Your task to perform on an android device: toggle location history Image 0: 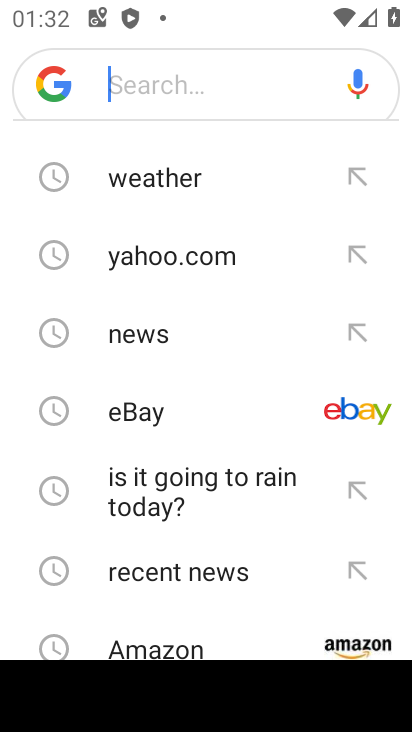
Step 0: press home button
Your task to perform on an android device: toggle location history Image 1: 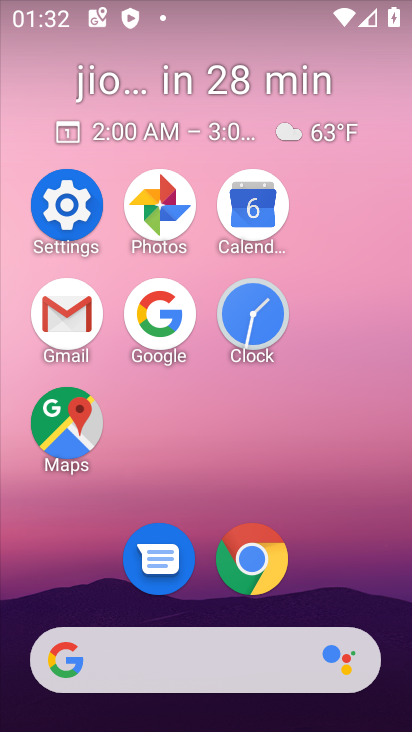
Step 1: click (83, 201)
Your task to perform on an android device: toggle location history Image 2: 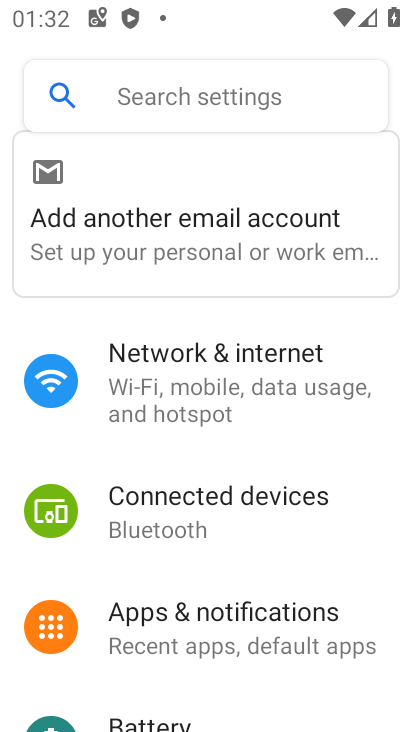
Step 2: drag from (273, 580) to (302, 130)
Your task to perform on an android device: toggle location history Image 3: 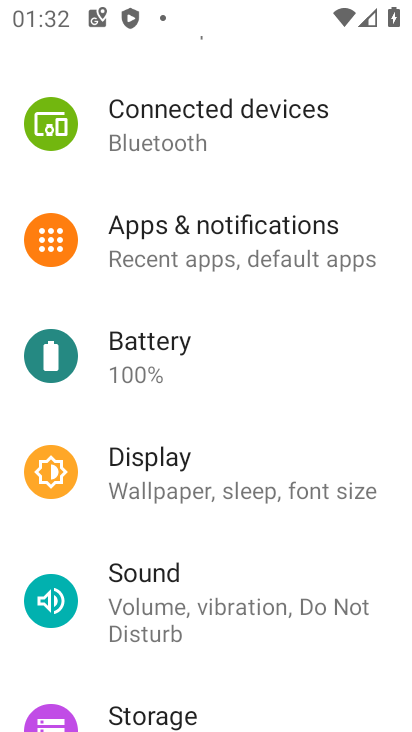
Step 3: drag from (238, 575) to (250, 227)
Your task to perform on an android device: toggle location history Image 4: 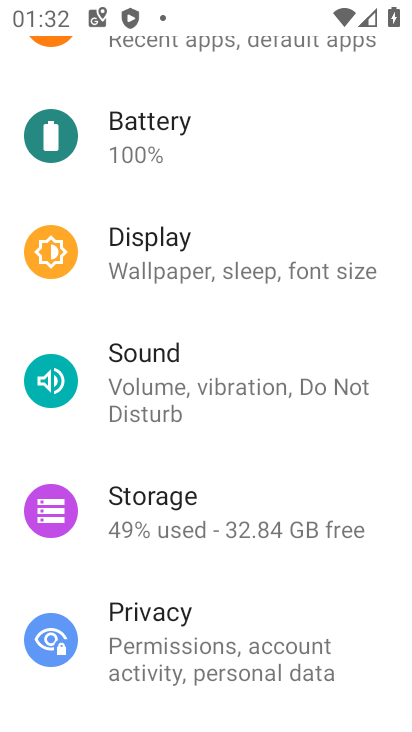
Step 4: drag from (172, 565) to (181, 209)
Your task to perform on an android device: toggle location history Image 5: 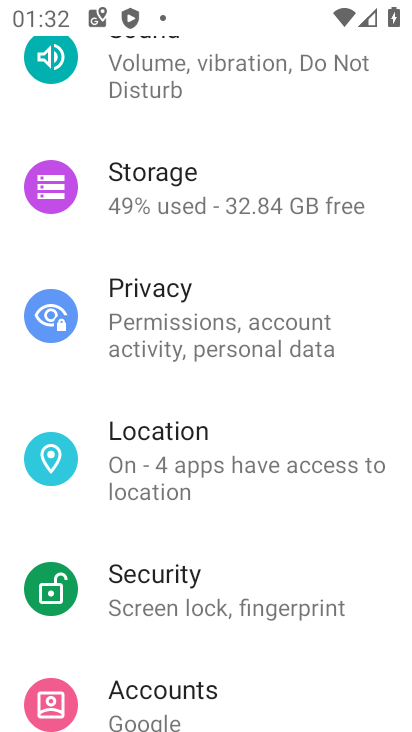
Step 5: click (184, 472)
Your task to perform on an android device: toggle location history Image 6: 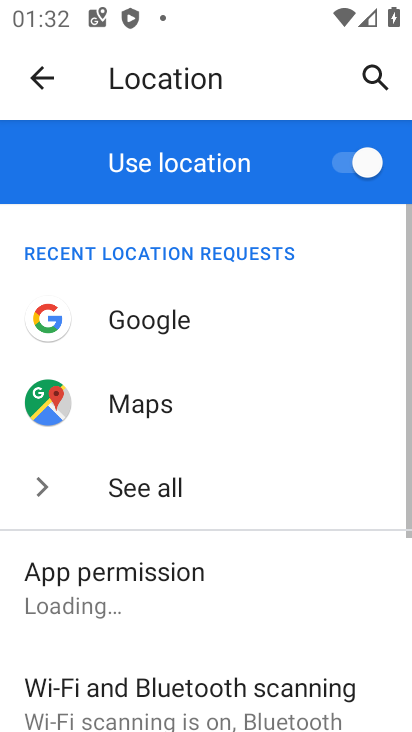
Step 6: drag from (174, 598) to (203, 210)
Your task to perform on an android device: toggle location history Image 7: 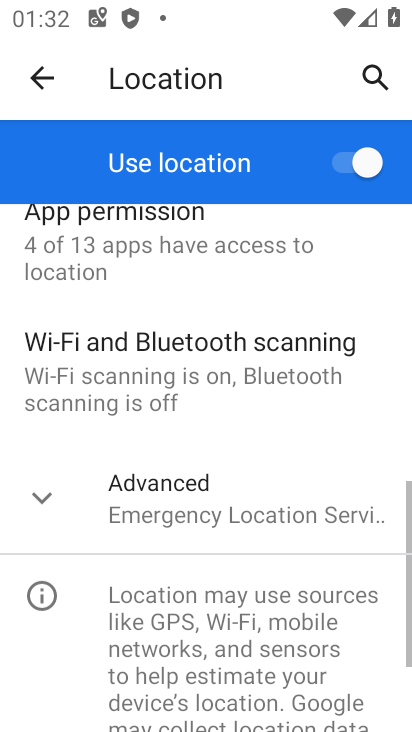
Step 7: click (185, 471)
Your task to perform on an android device: toggle location history Image 8: 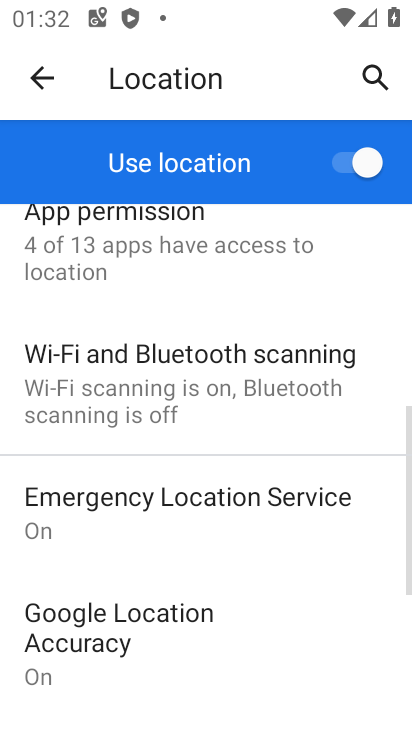
Step 8: drag from (165, 603) to (215, 248)
Your task to perform on an android device: toggle location history Image 9: 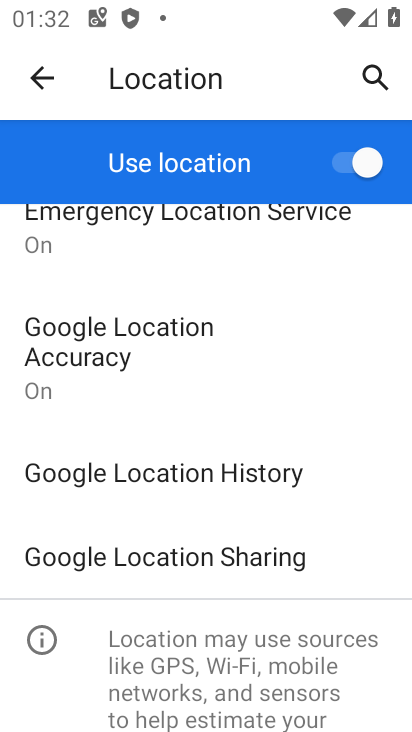
Step 9: click (248, 470)
Your task to perform on an android device: toggle location history Image 10: 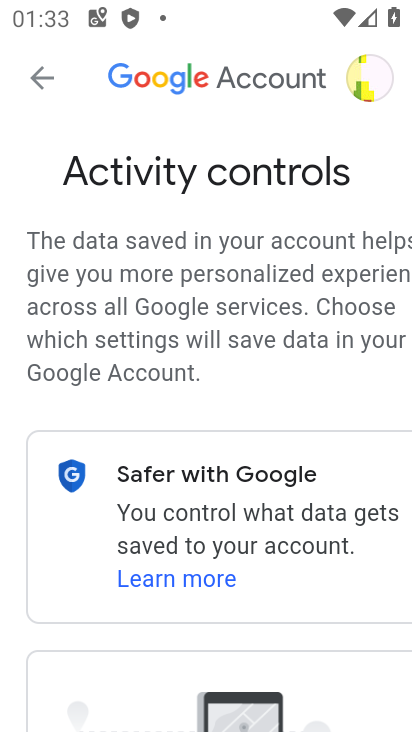
Step 10: drag from (296, 531) to (282, 138)
Your task to perform on an android device: toggle location history Image 11: 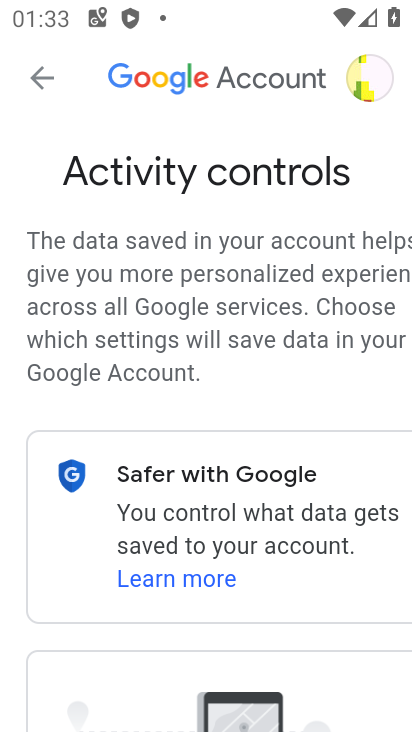
Step 11: drag from (277, 546) to (273, 193)
Your task to perform on an android device: toggle location history Image 12: 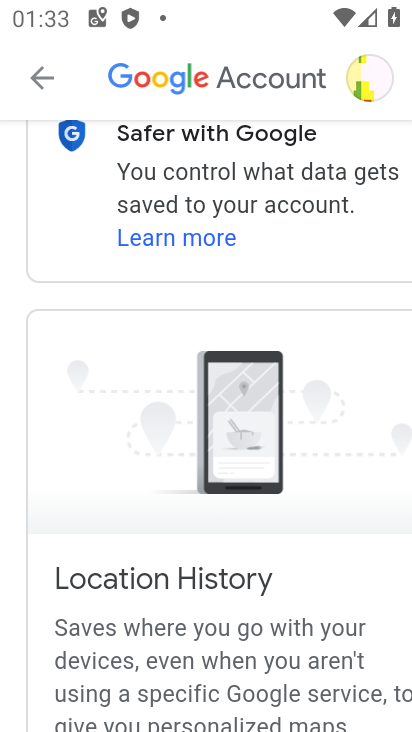
Step 12: drag from (329, 592) to (377, 263)
Your task to perform on an android device: toggle location history Image 13: 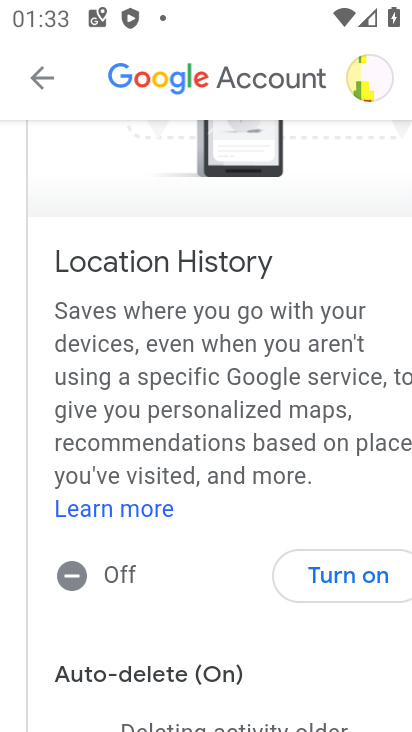
Step 13: click (343, 586)
Your task to perform on an android device: toggle location history Image 14: 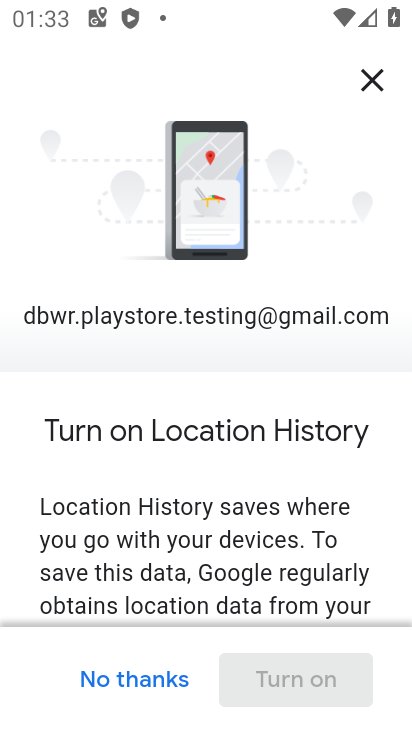
Step 14: drag from (350, 513) to (358, 251)
Your task to perform on an android device: toggle location history Image 15: 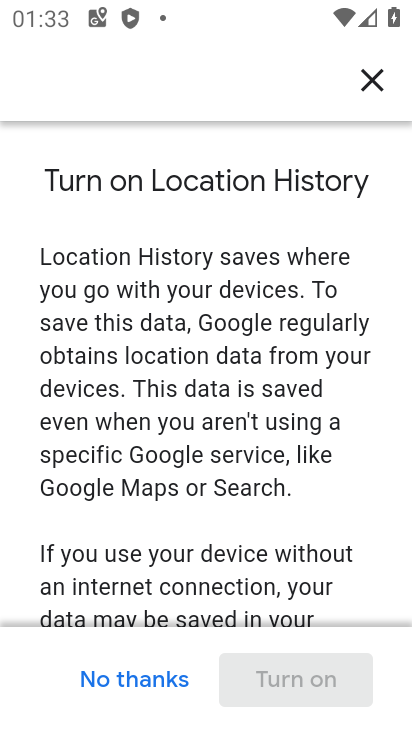
Step 15: drag from (322, 441) to (356, 221)
Your task to perform on an android device: toggle location history Image 16: 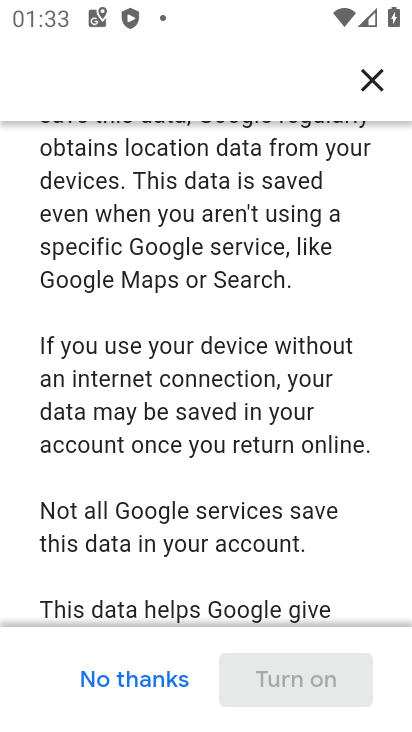
Step 16: drag from (316, 514) to (337, 211)
Your task to perform on an android device: toggle location history Image 17: 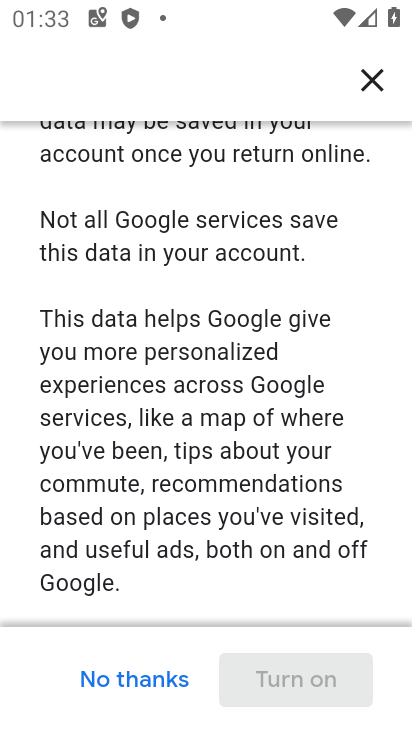
Step 17: drag from (325, 567) to (309, 247)
Your task to perform on an android device: toggle location history Image 18: 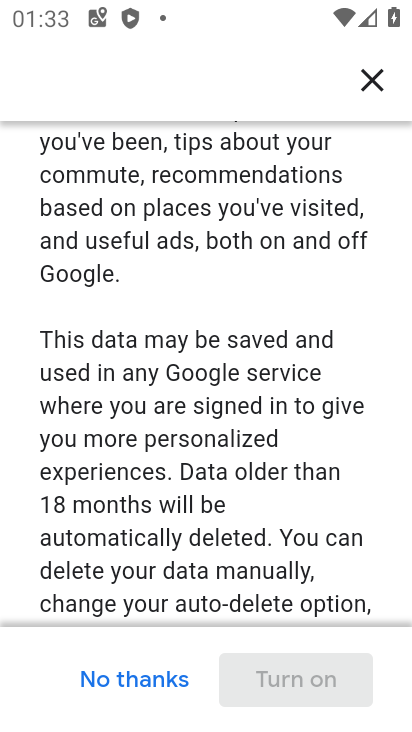
Step 18: drag from (343, 556) to (342, 108)
Your task to perform on an android device: toggle location history Image 19: 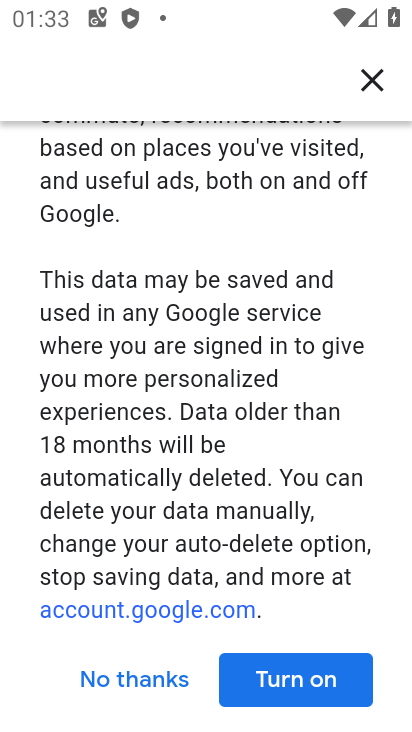
Step 19: click (293, 668)
Your task to perform on an android device: toggle location history Image 20: 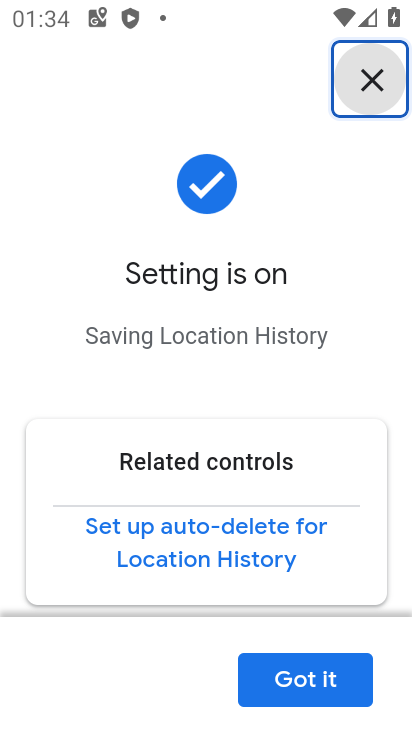
Step 20: click (327, 670)
Your task to perform on an android device: toggle location history Image 21: 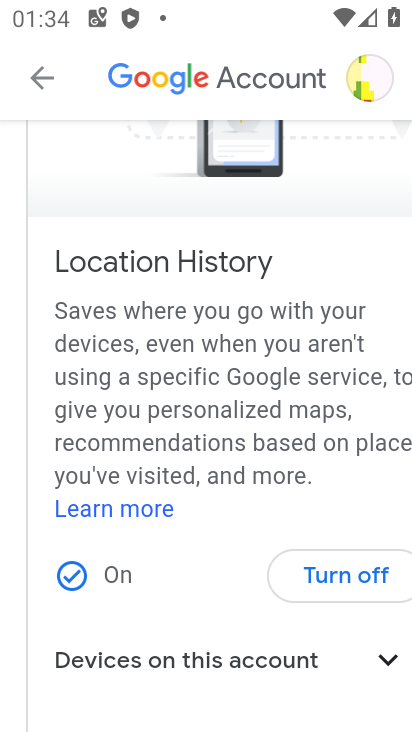
Step 21: task complete